Your task to perform on an android device: Open the phone app and click the voicemail tab. Image 0: 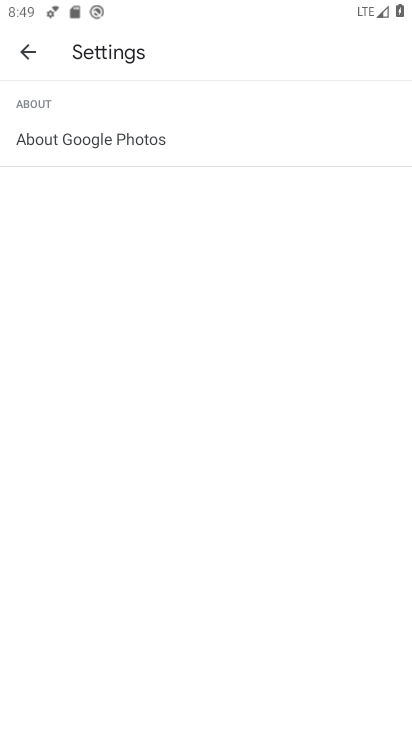
Step 0: press home button
Your task to perform on an android device: Open the phone app and click the voicemail tab. Image 1: 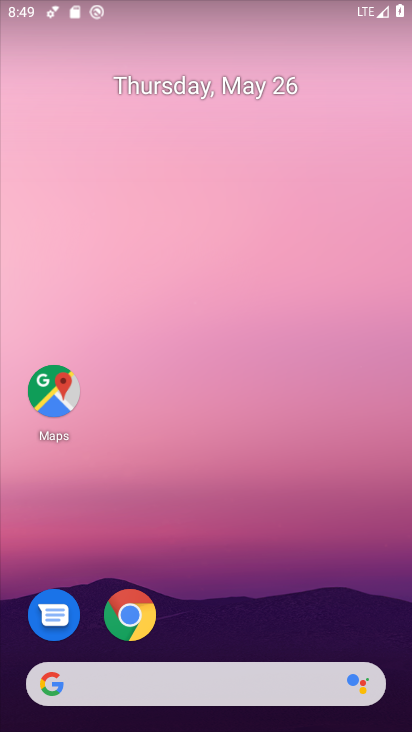
Step 1: drag from (248, 598) to (262, 246)
Your task to perform on an android device: Open the phone app and click the voicemail tab. Image 2: 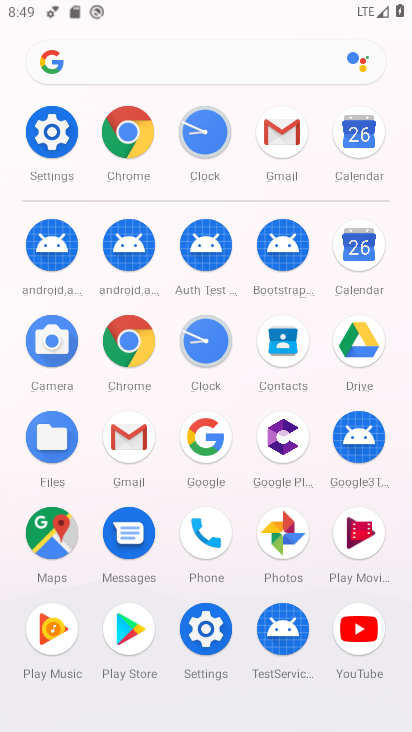
Step 2: click (202, 524)
Your task to perform on an android device: Open the phone app and click the voicemail tab. Image 3: 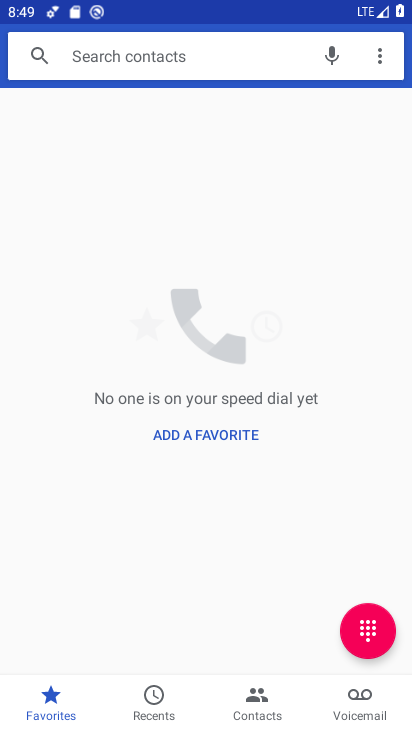
Step 3: click (361, 703)
Your task to perform on an android device: Open the phone app and click the voicemail tab. Image 4: 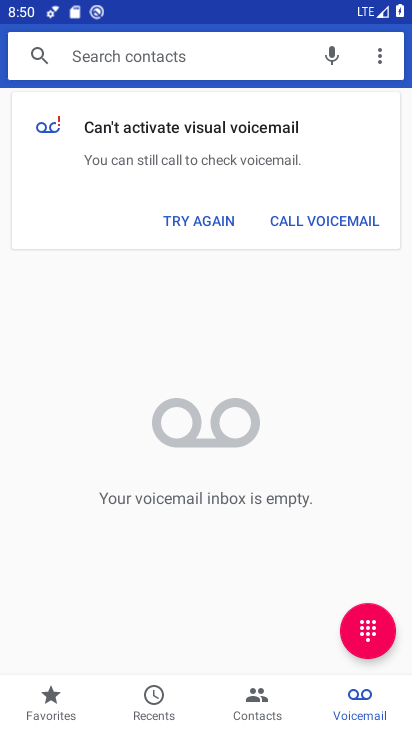
Step 4: task complete